Your task to perform on an android device: open device folders in google photos Image 0: 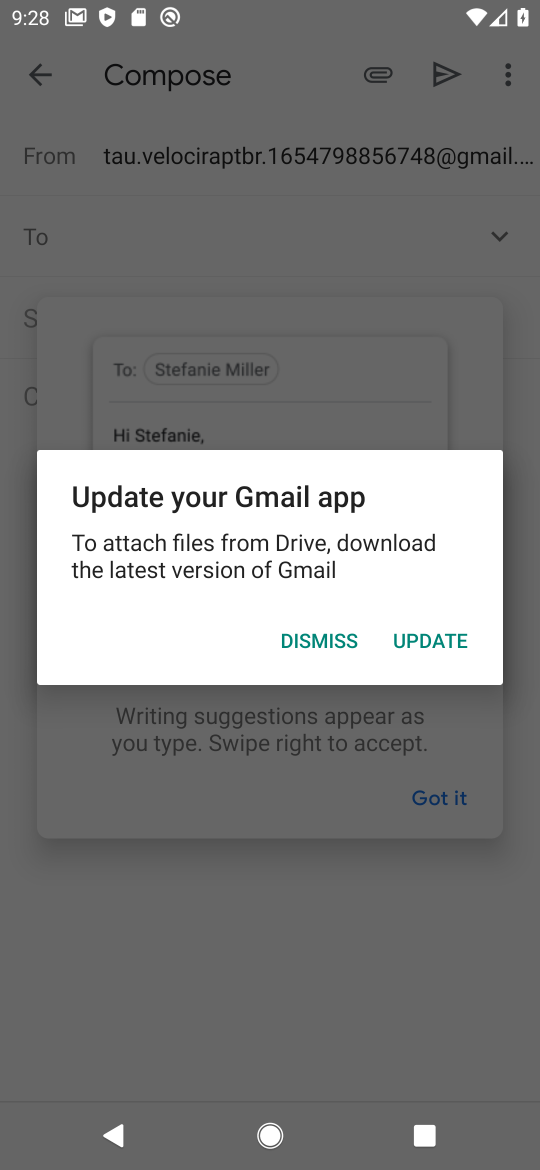
Step 0: click (323, 646)
Your task to perform on an android device: open device folders in google photos Image 1: 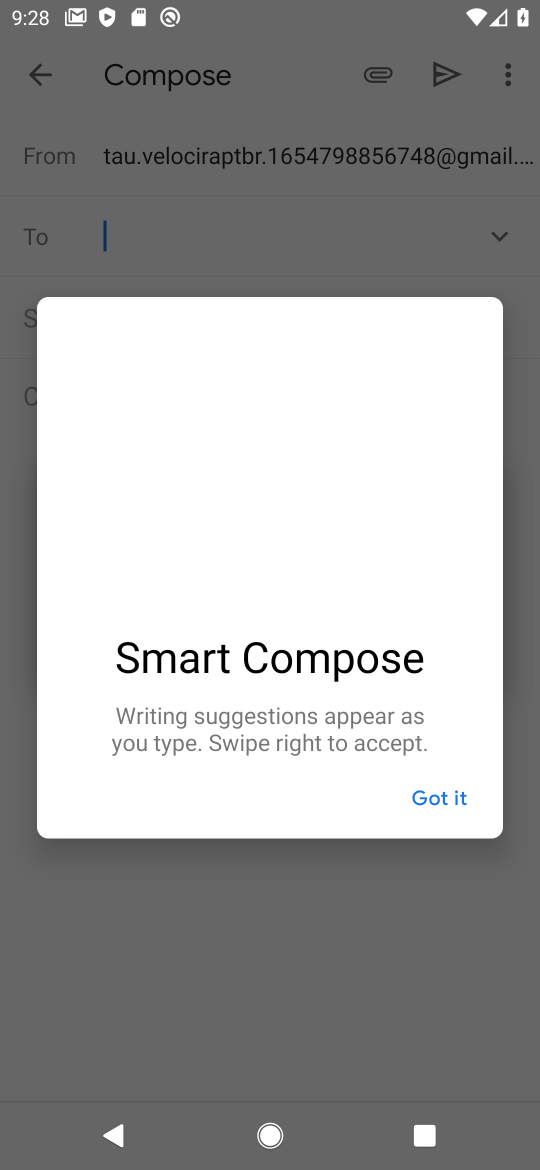
Step 1: click (436, 789)
Your task to perform on an android device: open device folders in google photos Image 2: 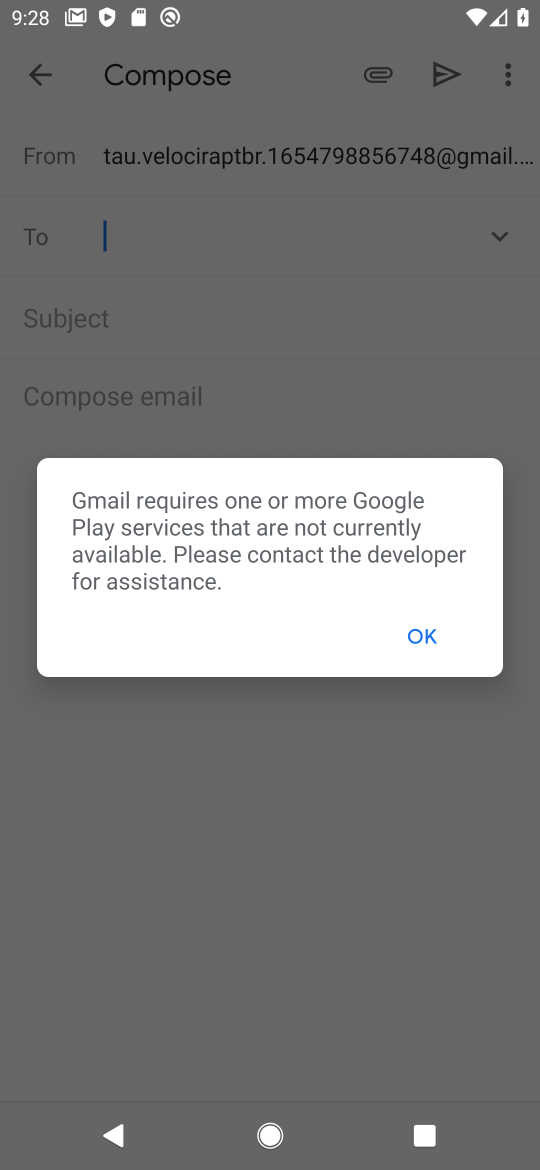
Step 2: press home button
Your task to perform on an android device: open device folders in google photos Image 3: 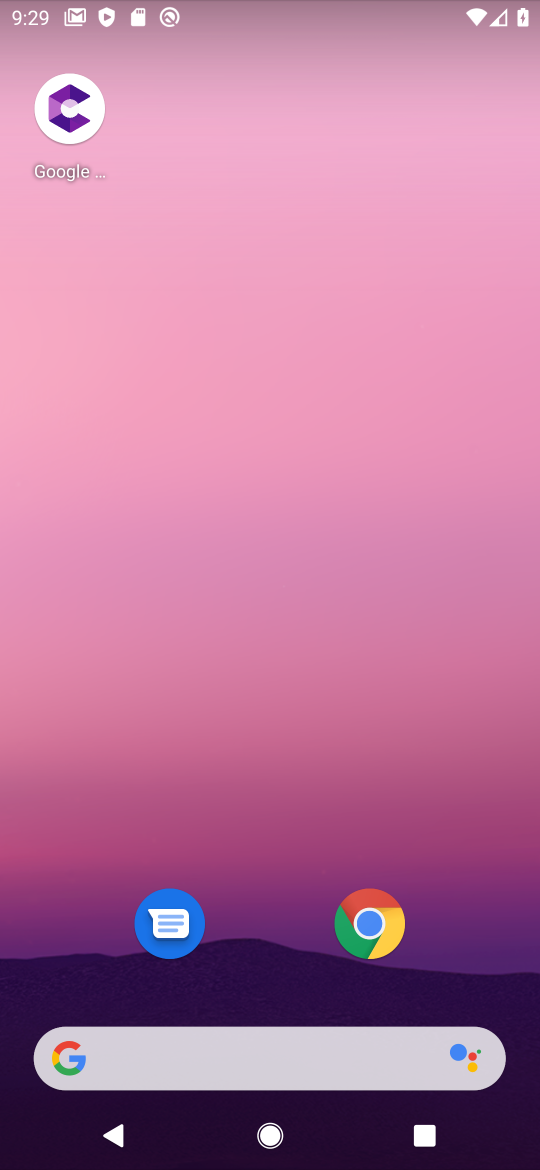
Step 3: drag from (370, 414) to (521, 191)
Your task to perform on an android device: open device folders in google photos Image 4: 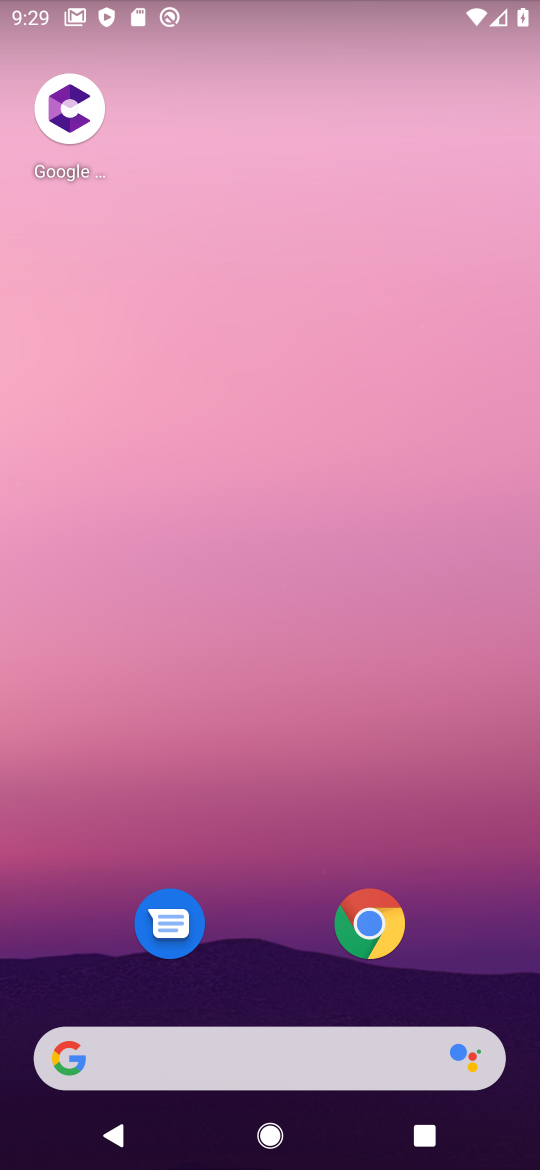
Step 4: drag from (160, 792) to (505, 221)
Your task to perform on an android device: open device folders in google photos Image 5: 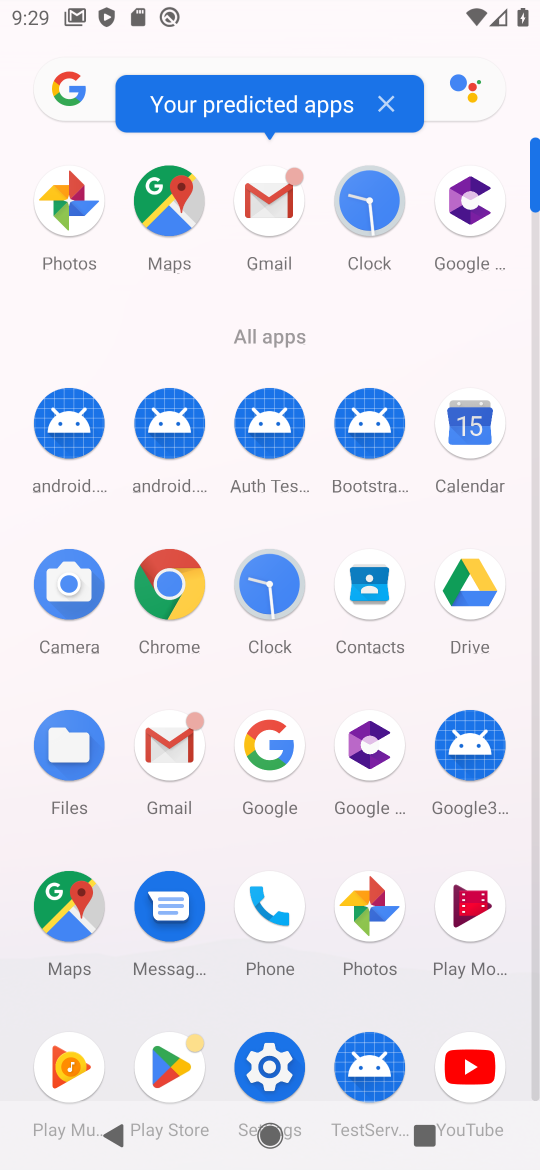
Step 5: click (90, 209)
Your task to perform on an android device: open device folders in google photos Image 6: 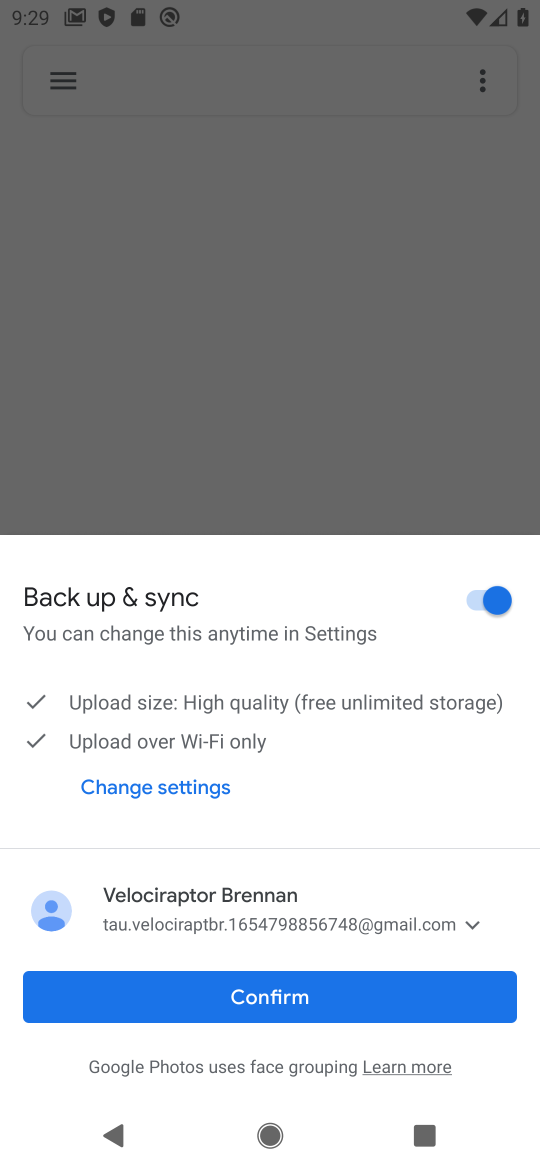
Step 6: click (236, 992)
Your task to perform on an android device: open device folders in google photos Image 7: 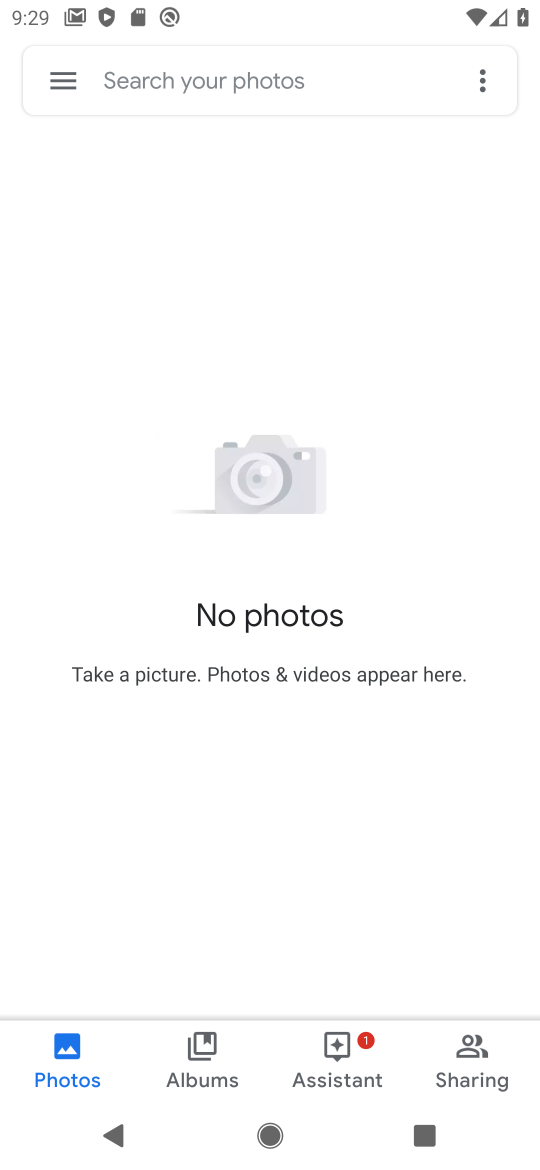
Step 7: click (48, 66)
Your task to perform on an android device: open device folders in google photos Image 8: 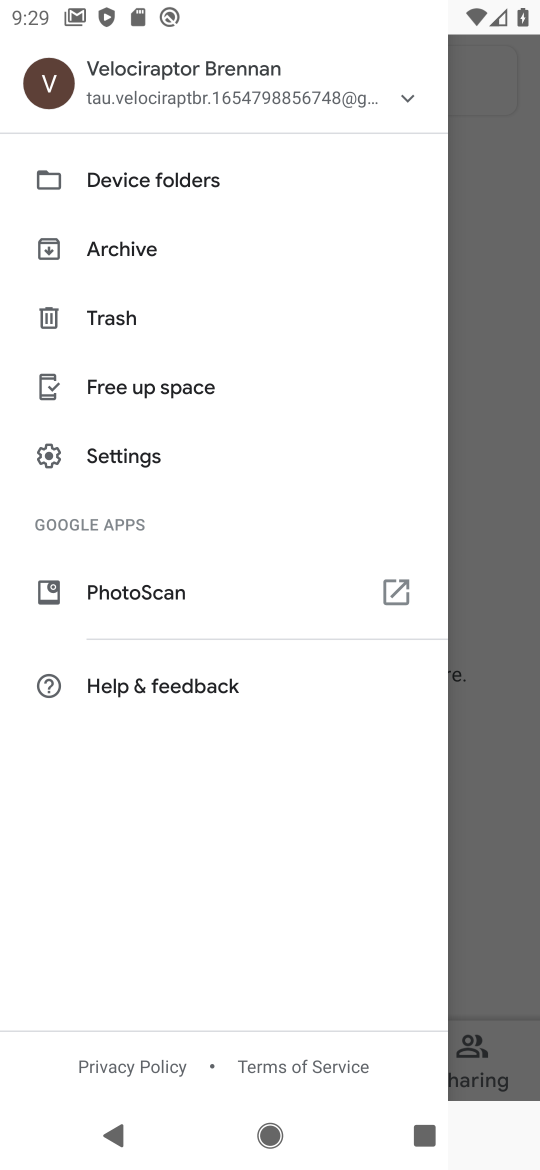
Step 8: click (160, 172)
Your task to perform on an android device: open device folders in google photos Image 9: 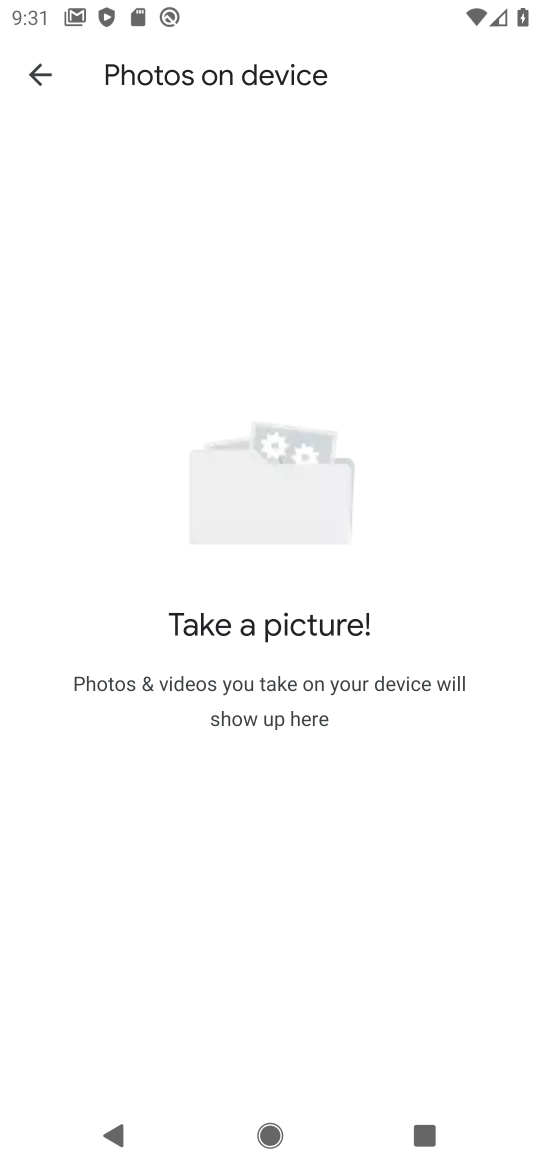
Step 9: task complete